Your task to perform on an android device: refresh tabs in the chrome app Image 0: 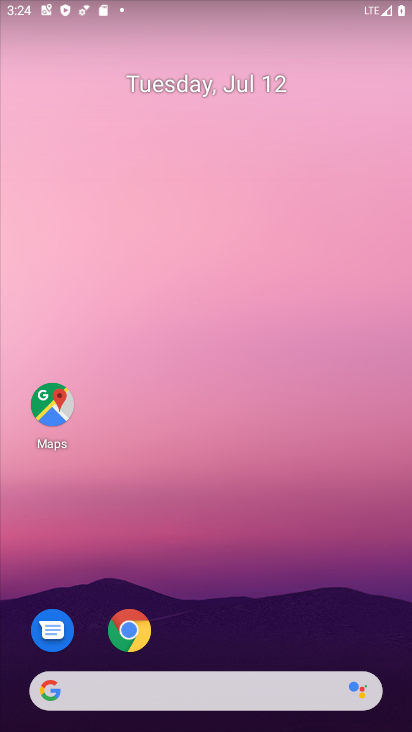
Step 0: drag from (304, 690) to (336, 1)
Your task to perform on an android device: refresh tabs in the chrome app Image 1: 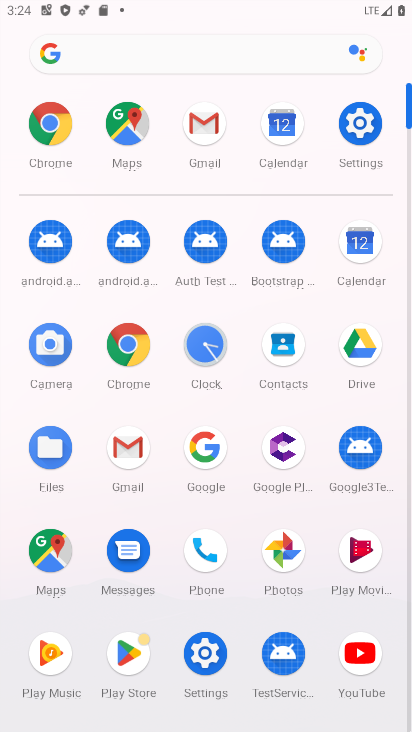
Step 1: click (118, 350)
Your task to perform on an android device: refresh tabs in the chrome app Image 2: 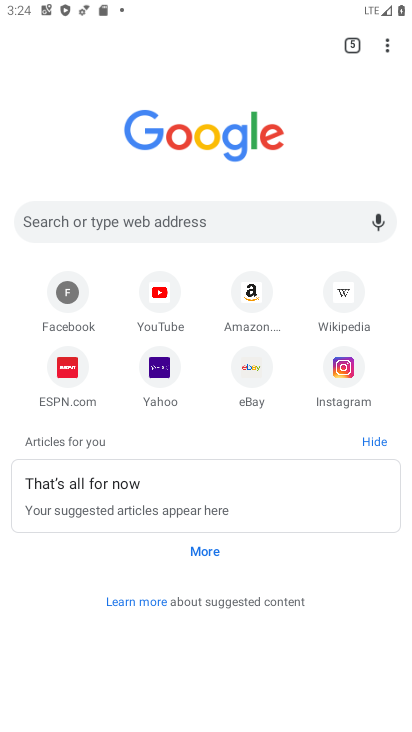
Step 2: click (387, 48)
Your task to perform on an android device: refresh tabs in the chrome app Image 3: 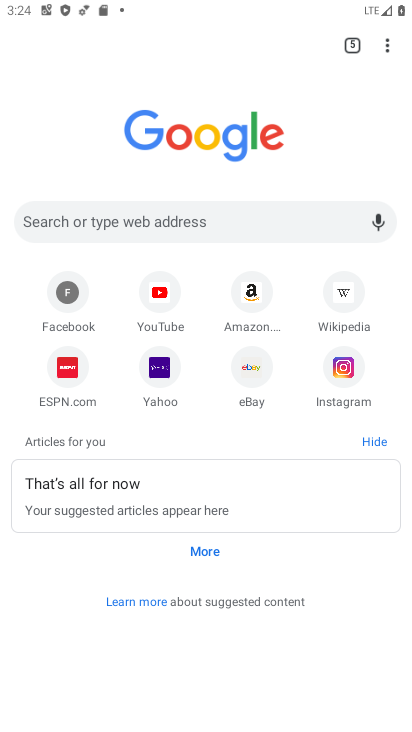
Step 3: task complete